Your task to perform on an android device: Turn on the flashlight Image 0: 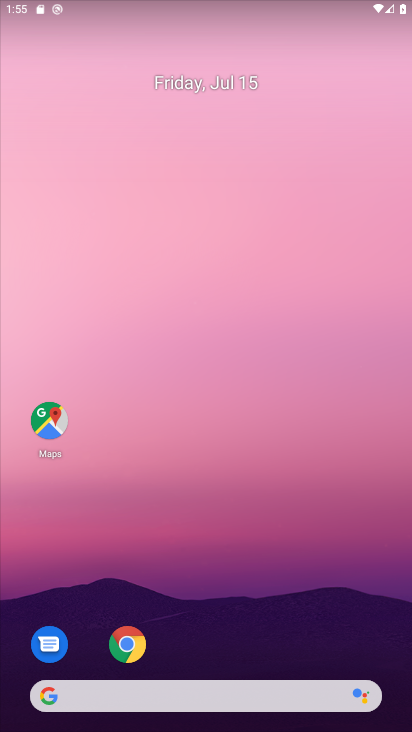
Step 0: drag from (307, 6) to (331, 411)
Your task to perform on an android device: Turn on the flashlight Image 1: 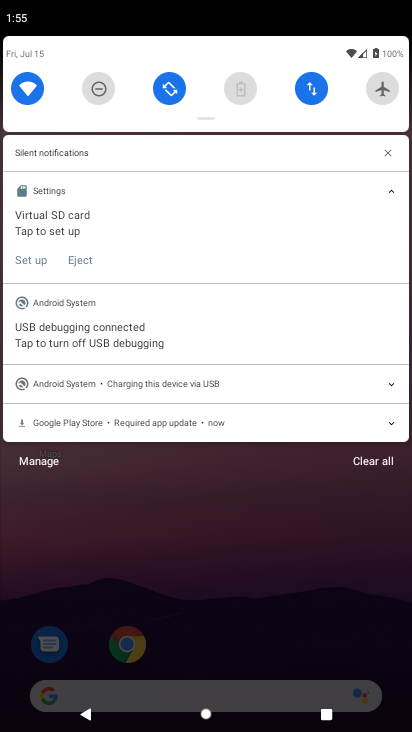
Step 1: drag from (277, 116) to (311, 521)
Your task to perform on an android device: Turn on the flashlight Image 2: 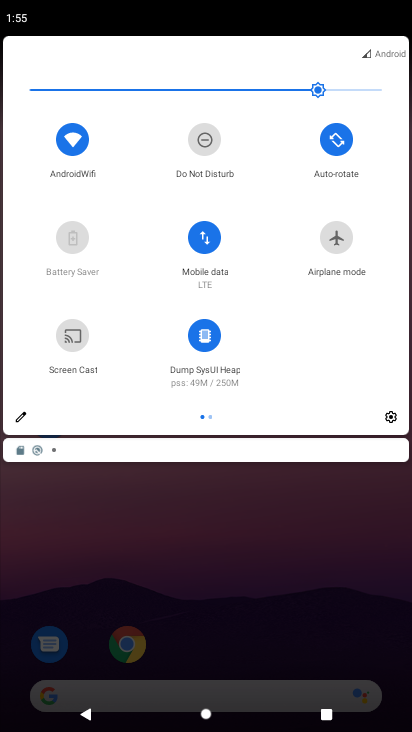
Step 2: click (25, 414)
Your task to perform on an android device: Turn on the flashlight Image 3: 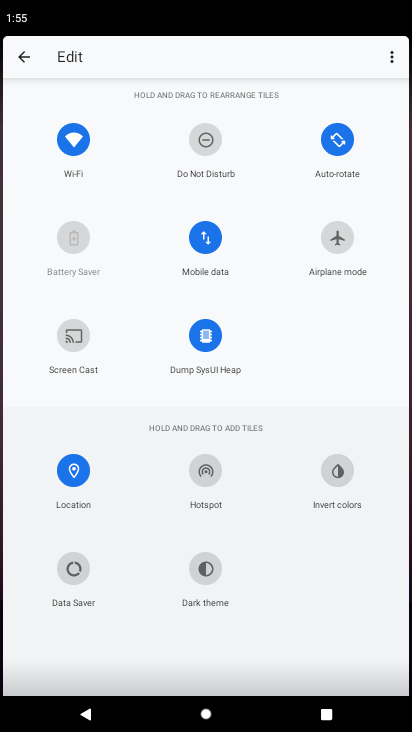
Step 3: task complete